Your task to perform on an android device: Search for sushi restaurants on Maps Image 0: 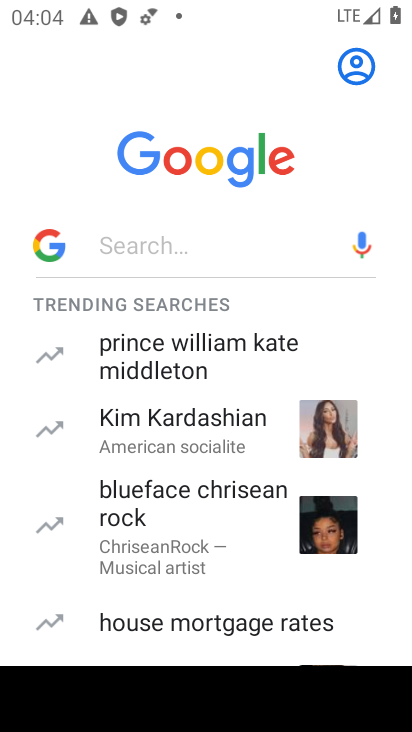
Step 0: press back button
Your task to perform on an android device: Search for sushi restaurants on Maps Image 1: 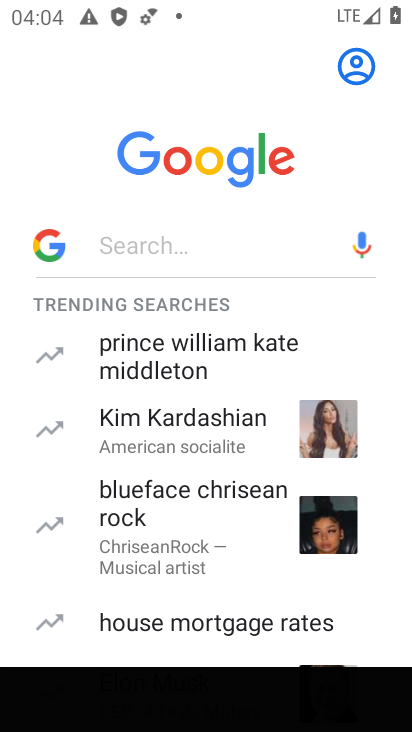
Step 1: press back button
Your task to perform on an android device: Search for sushi restaurants on Maps Image 2: 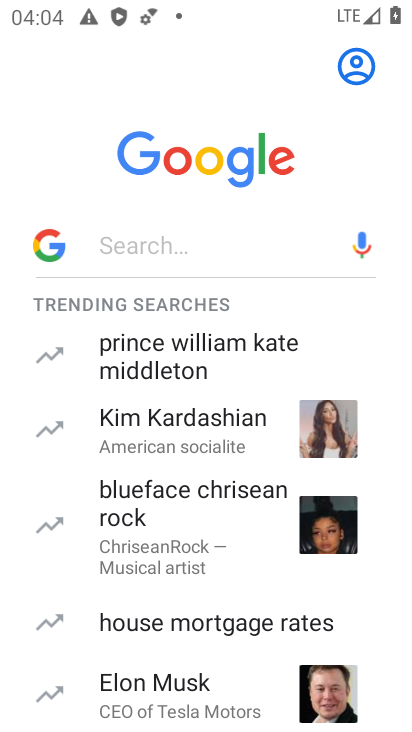
Step 2: press back button
Your task to perform on an android device: Search for sushi restaurants on Maps Image 3: 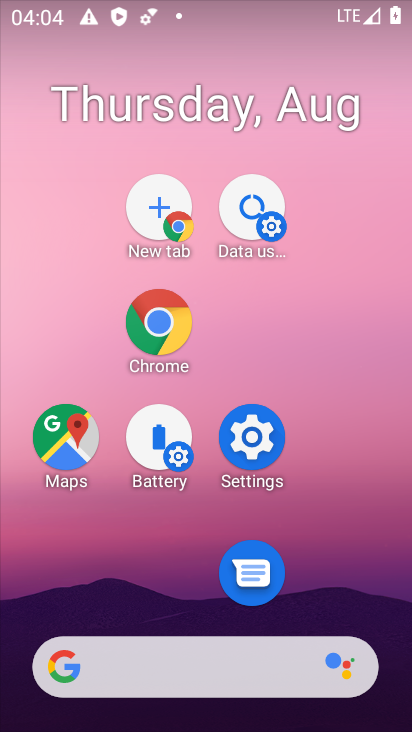
Step 3: drag from (201, 543) to (157, 277)
Your task to perform on an android device: Search for sushi restaurants on Maps Image 4: 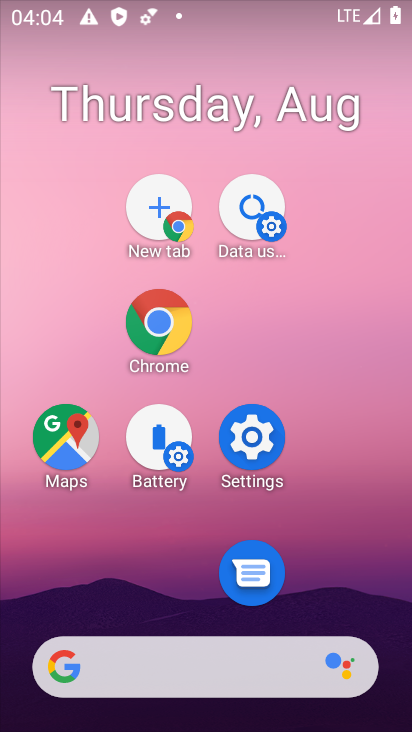
Step 4: drag from (141, 449) to (127, 255)
Your task to perform on an android device: Search for sushi restaurants on Maps Image 5: 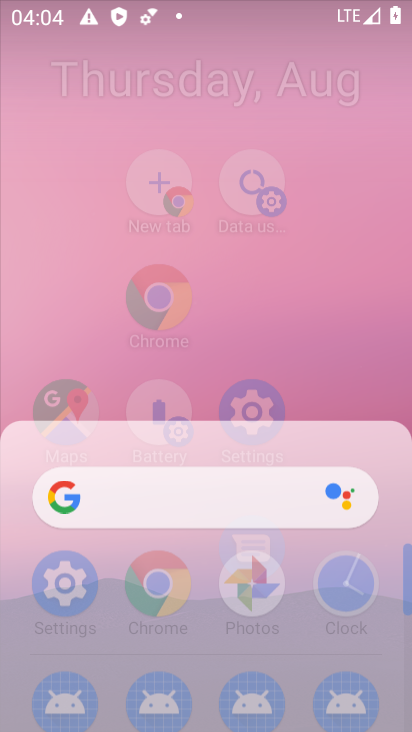
Step 5: drag from (160, 597) to (166, 212)
Your task to perform on an android device: Search for sushi restaurants on Maps Image 6: 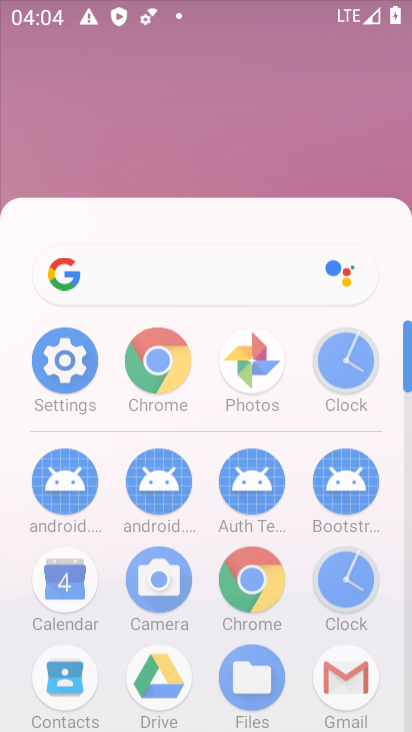
Step 6: drag from (181, 577) to (161, 162)
Your task to perform on an android device: Search for sushi restaurants on Maps Image 7: 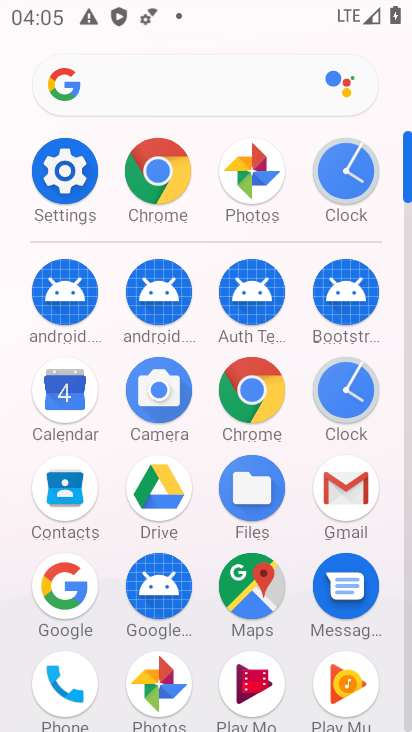
Step 7: click (261, 581)
Your task to perform on an android device: Search for sushi restaurants on Maps Image 8: 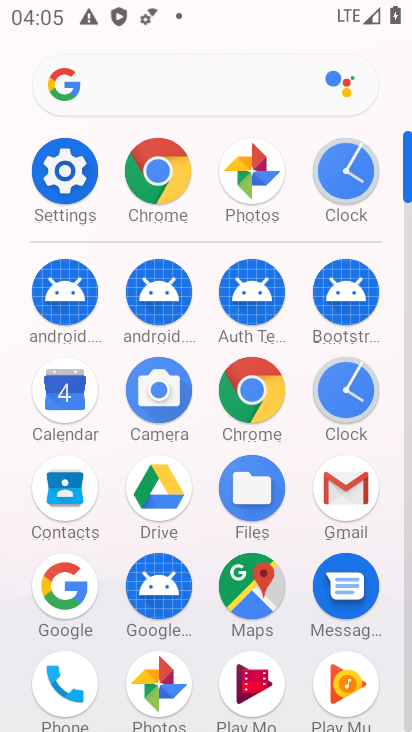
Step 8: click (261, 581)
Your task to perform on an android device: Search for sushi restaurants on Maps Image 9: 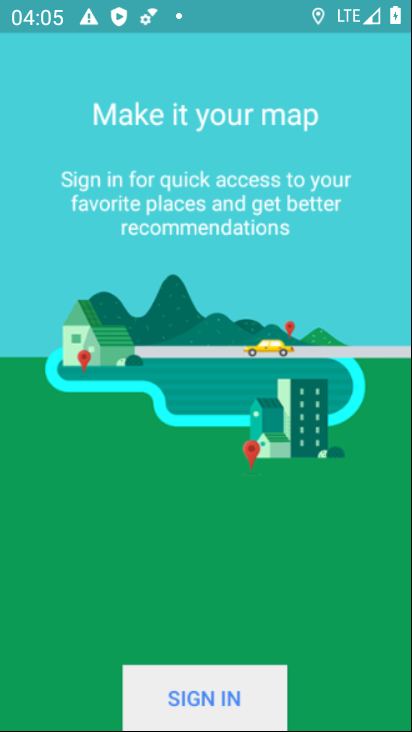
Step 9: click (249, 582)
Your task to perform on an android device: Search for sushi restaurants on Maps Image 10: 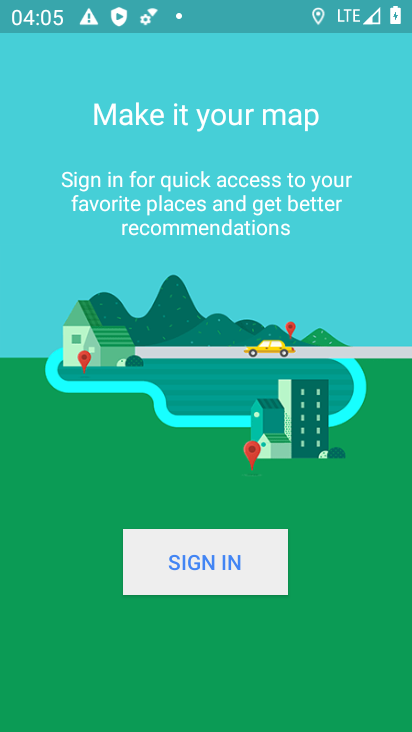
Step 10: click (341, 81)
Your task to perform on an android device: Search for sushi restaurants on Maps Image 11: 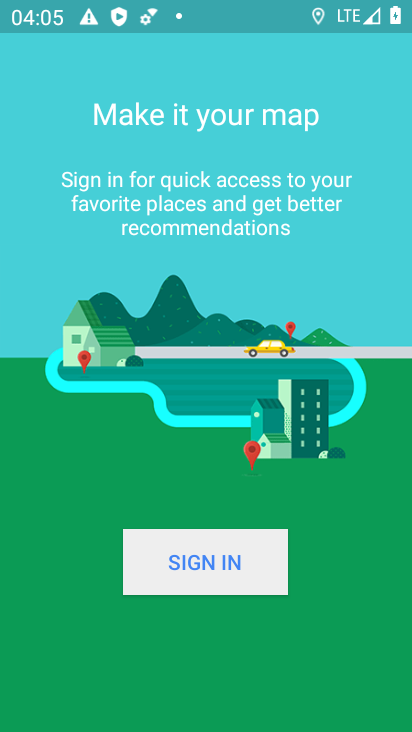
Step 11: click (331, 141)
Your task to perform on an android device: Search for sushi restaurants on Maps Image 12: 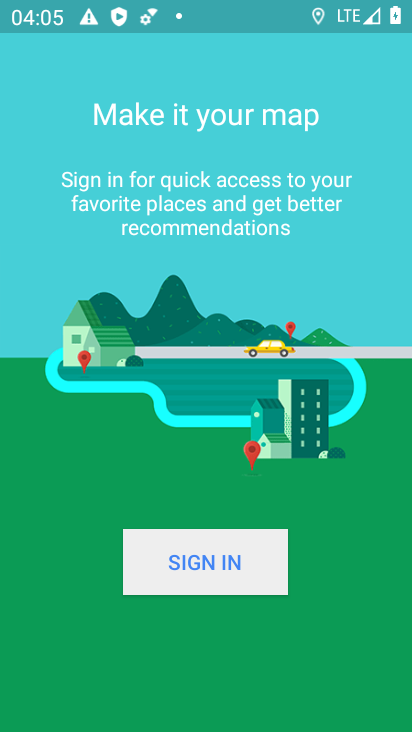
Step 12: click (329, 122)
Your task to perform on an android device: Search for sushi restaurants on Maps Image 13: 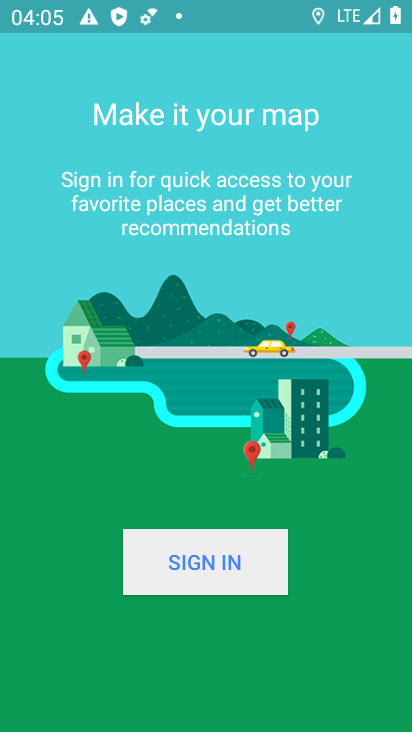
Step 13: click (315, 126)
Your task to perform on an android device: Search for sushi restaurants on Maps Image 14: 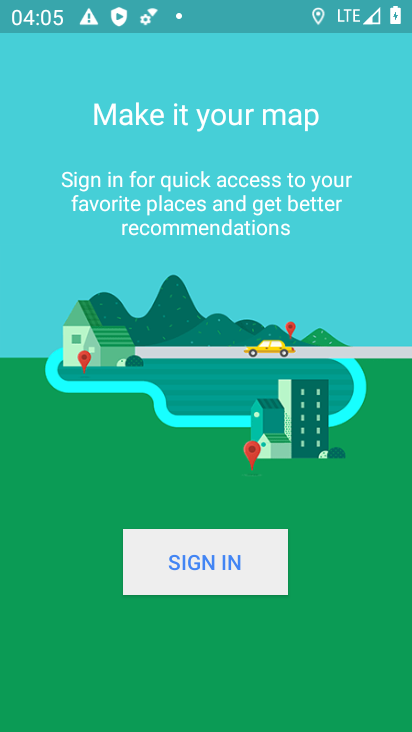
Step 14: click (318, 124)
Your task to perform on an android device: Search for sushi restaurants on Maps Image 15: 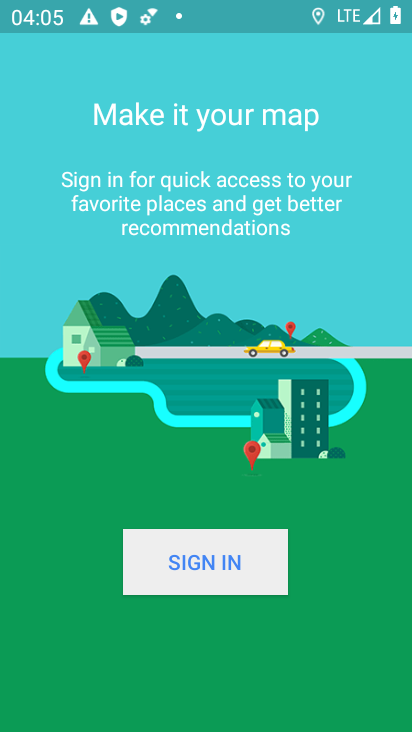
Step 15: click (322, 113)
Your task to perform on an android device: Search for sushi restaurants on Maps Image 16: 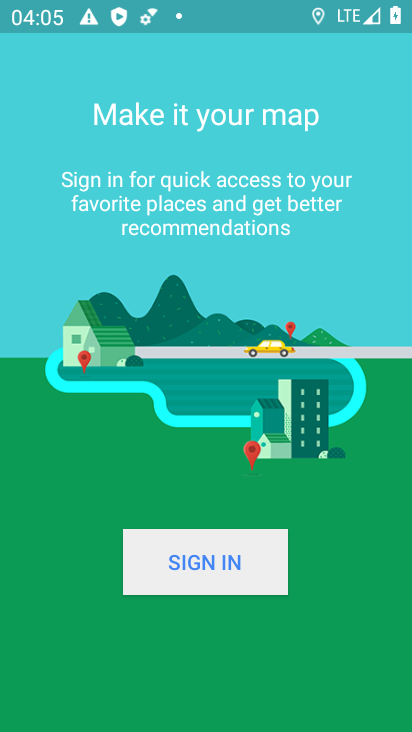
Step 16: click (324, 112)
Your task to perform on an android device: Search for sushi restaurants on Maps Image 17: 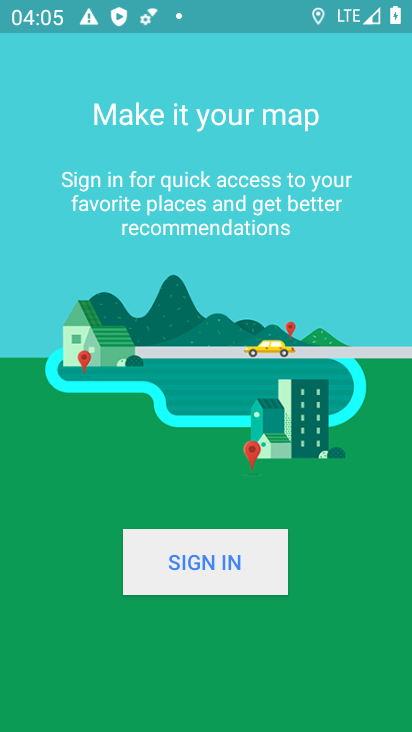
Step 17: click (338, 90)
Your task to perform on an android device: Search for sushi restaurants on Maps Image 18: 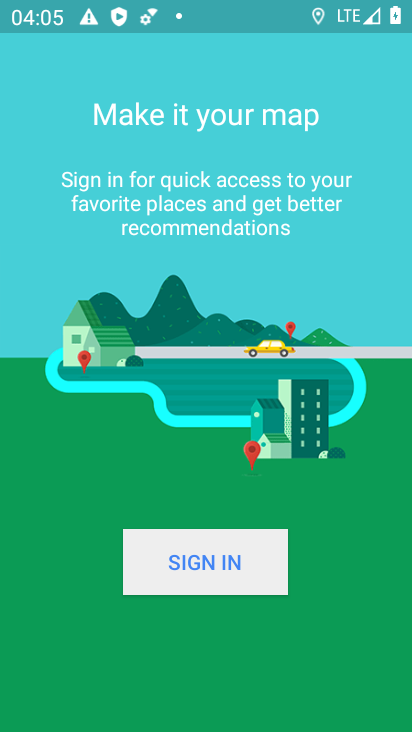
Step 18: click (372, 49)
Your task to perform on an android device: Search for sushi restaurants on Maps Image 19: 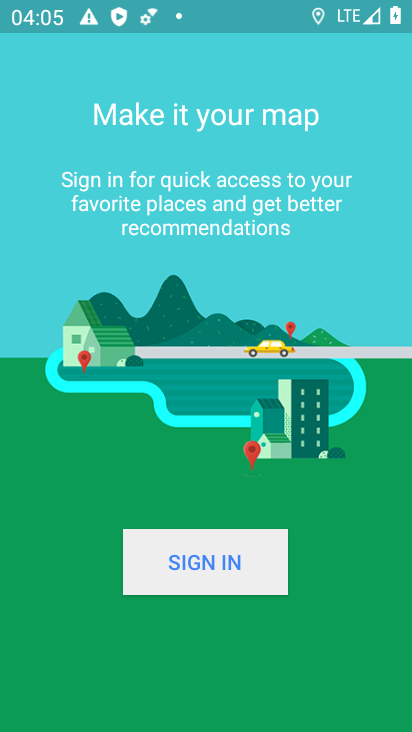
Step 19: click (372, 49)
Your task to perform on an android device: Search for sushi restaurants on Maps Image 20: 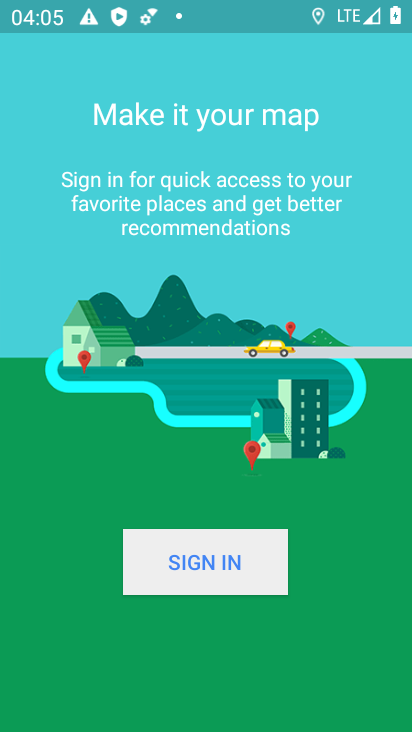
Step 20: task complete